Your task to perform on an android device: refresh tabs in the chrome app Image 0: 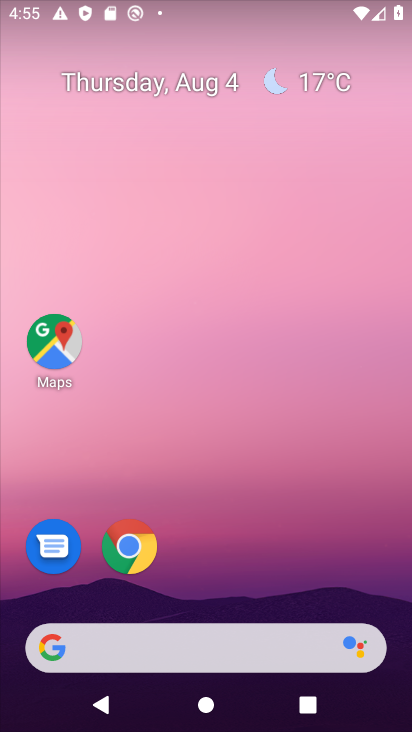
Step 0: click (120, 545)
Your task to perform on an android device: refresh tabs in the chrome app Image 1: 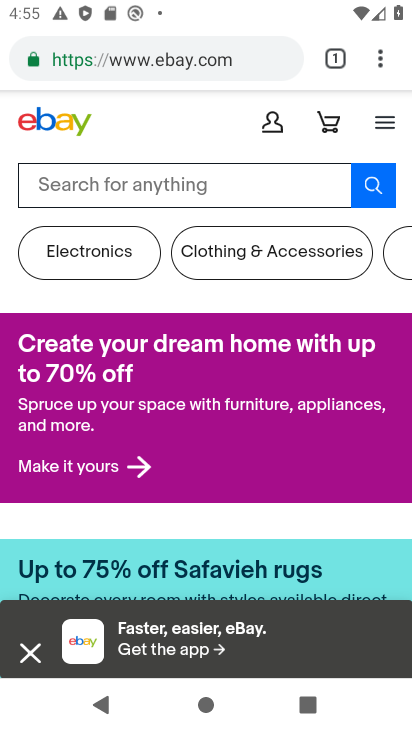
Step 1: click (380, 55)
Your task to perform on an android device: refresh tabs in the chrome app Image 2: 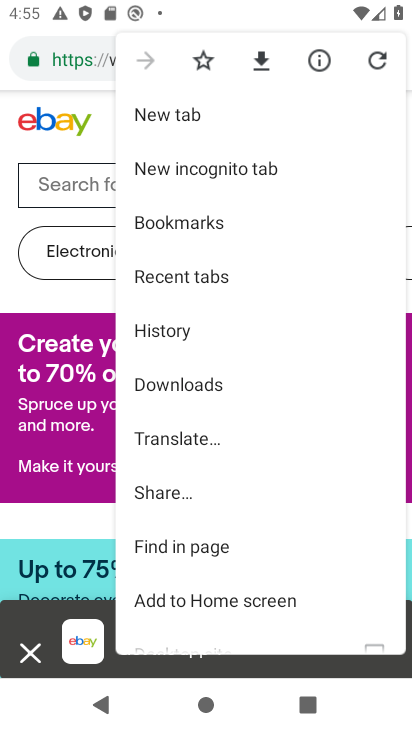
Step 2: click (372, 55)
Your task to perform on an android device: refresh tabs in the chrome app Image 3: 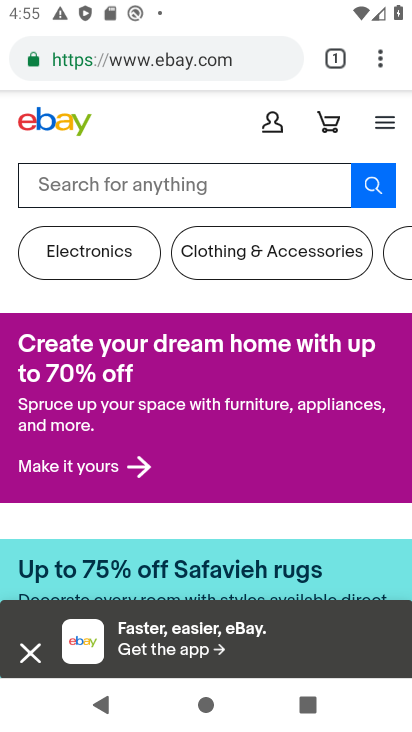
Step 3: task complete